Your task to perform on an android device: Toggle the flashlight Image 0: 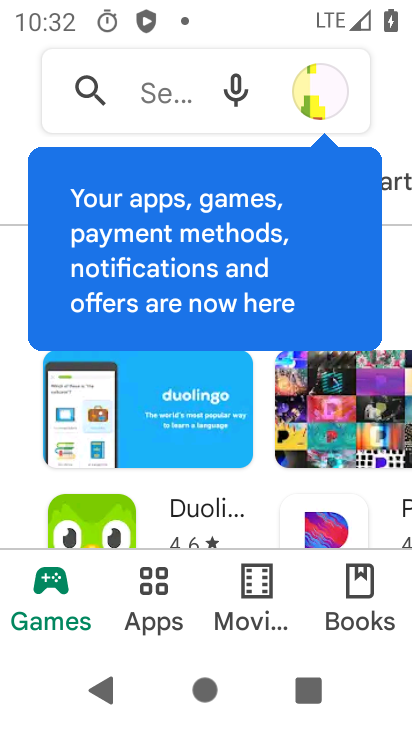
Step 0: press home button
Your task to perform on an android device: Toggle the flashlight Image 1: 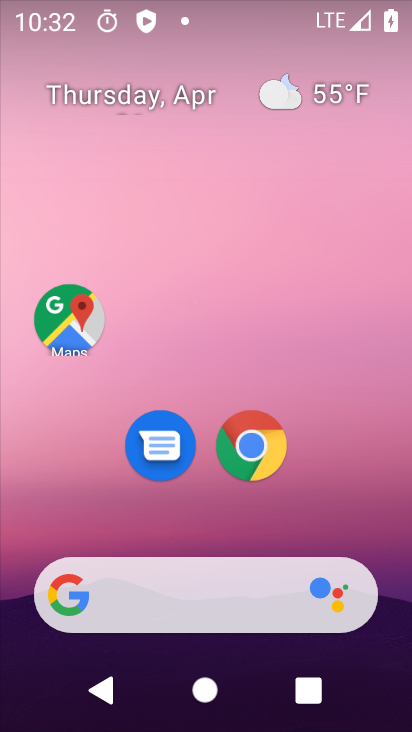
Step 1: task complete